Your task to perform on an android device: toggle priority inbox in the gmail app Image 0: 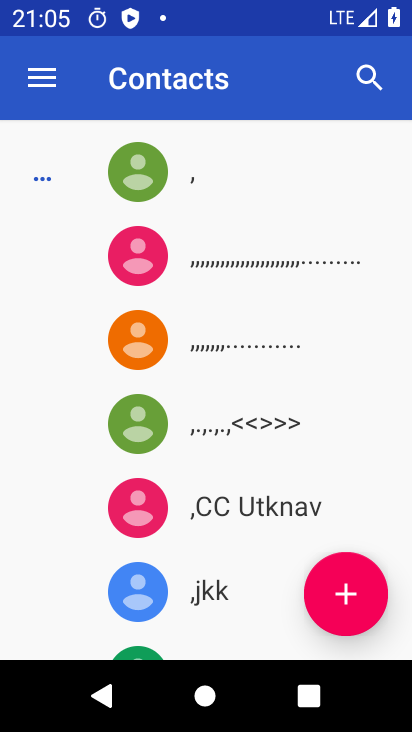
Step 0: press home button
Your task to perform on an android device: toggle priority inbox in the gmail app Image 1: 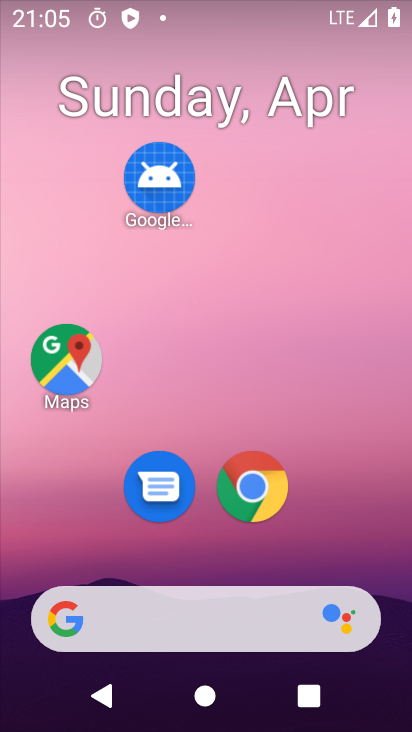
Step 1: drag from (320, 519) to (330, 136)
Your task to perform on an android device: toggle priority inbox in the gmail app Image 2: 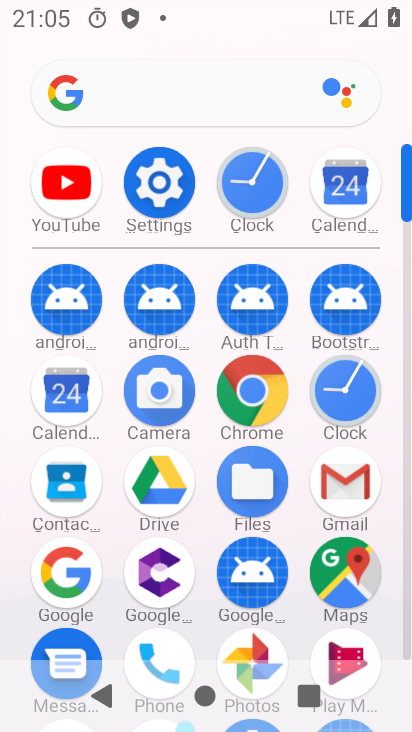
Step 2: click (349, 489)
Your task to perform on an android device: toggle priority inbox in the gmail app Image 3: 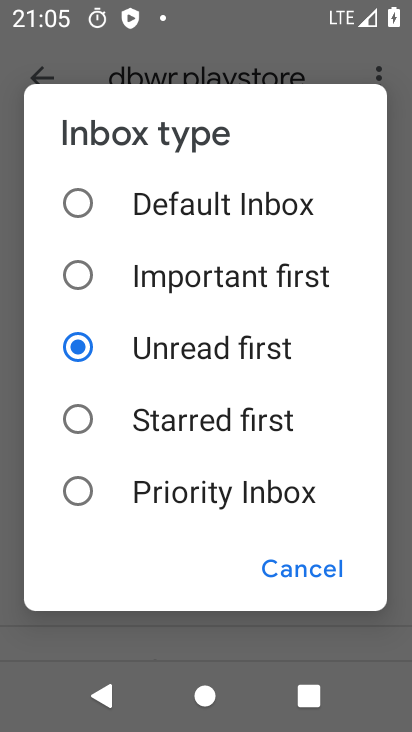
Step 3: click (152, 496)
Your task to perform on an android device: toggle priority inbox in the gmail app Image 4: 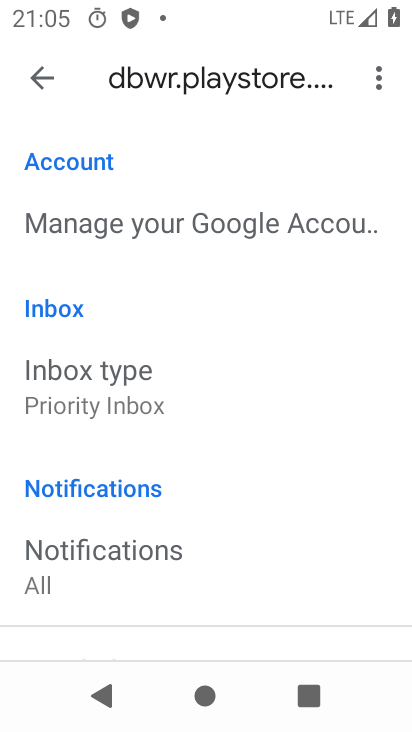
Step 4: task complete